Your task to perform on an android device: check data usage Image 0: 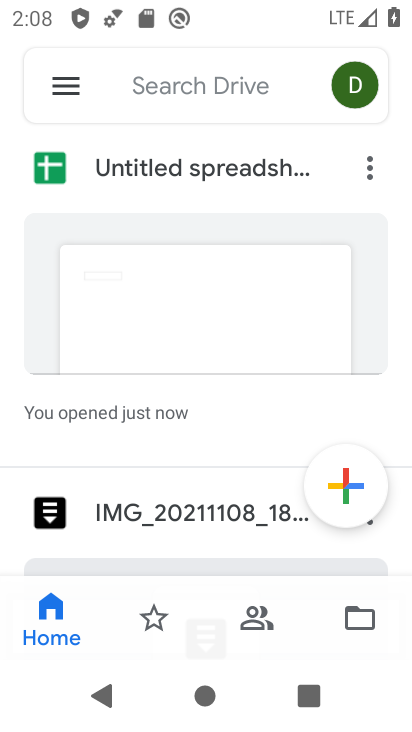
Step 0: press home button
Your task to perform on an android device: check data usage Image 1: 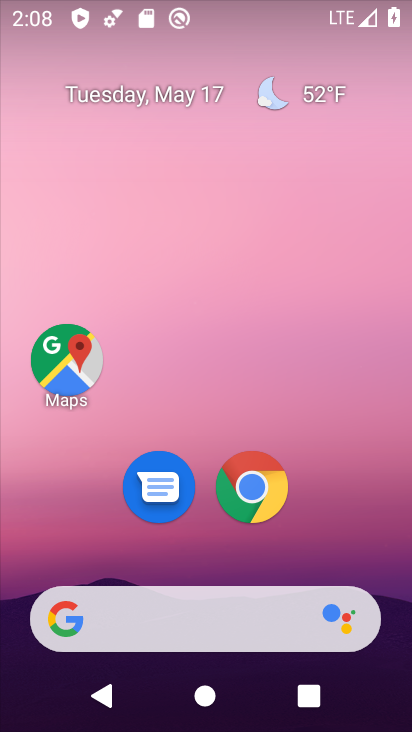
Step 1: drag from (400, 617) to (289, 235)
Your task to perform on an android device: check data usage Image 2: 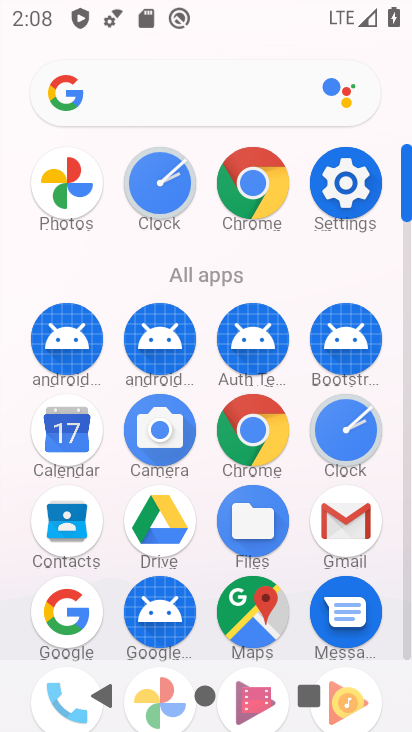
Step 2: click (343, 174)
Your task to perform on an android device: check data usage Image 3: 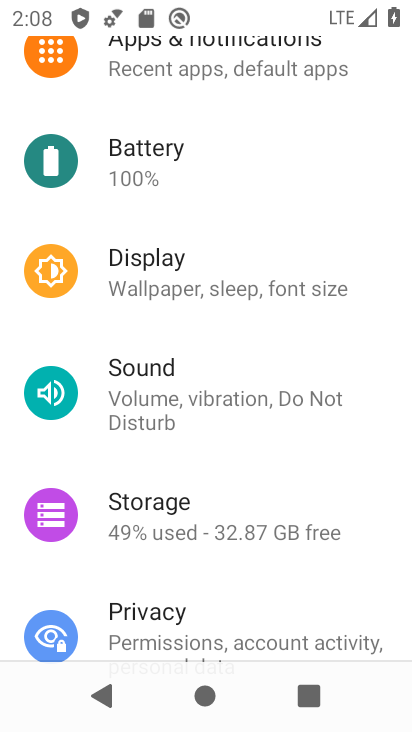
Step 3: drag from (342, 189) to (402, 517)
Your task to perform on an android device: check data usage Image 4: 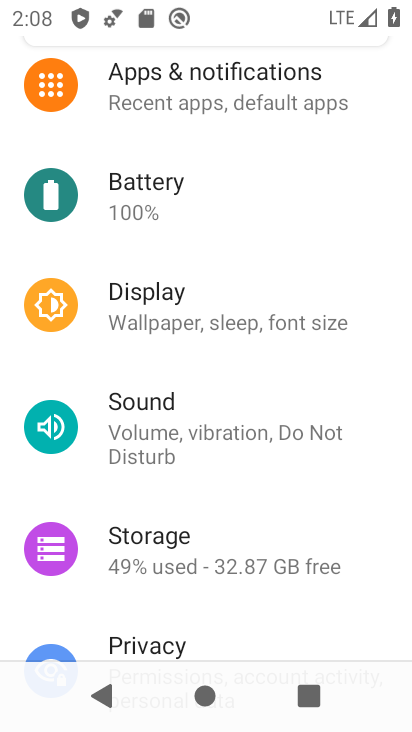
Step 4: drag from (324, 183) to (361, 596)
Your task to perform on an android device: check data usage Image 5: 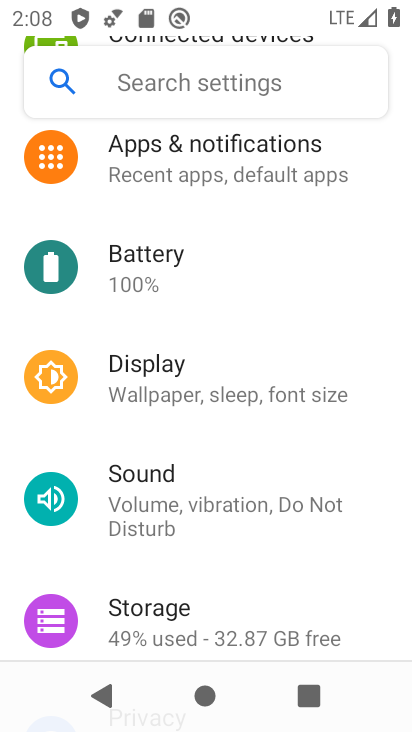
Step 5: drag from (332, 210) to (324, 617)
Your task to perform on an android device: check data usage Image 6: 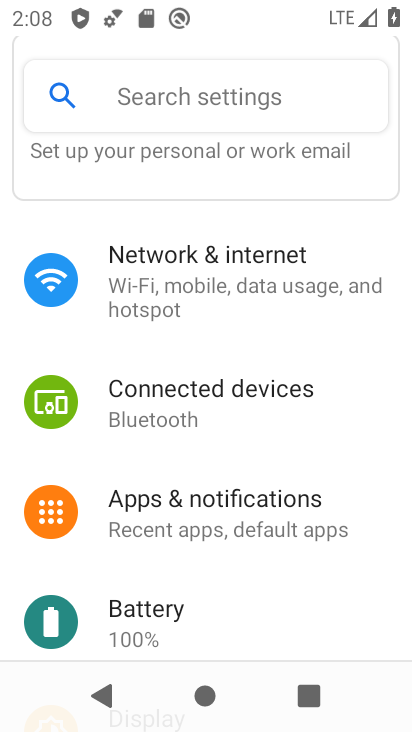
Step 6: click (172, 275)
Your task to perform on an android device: check data usage Image 7: 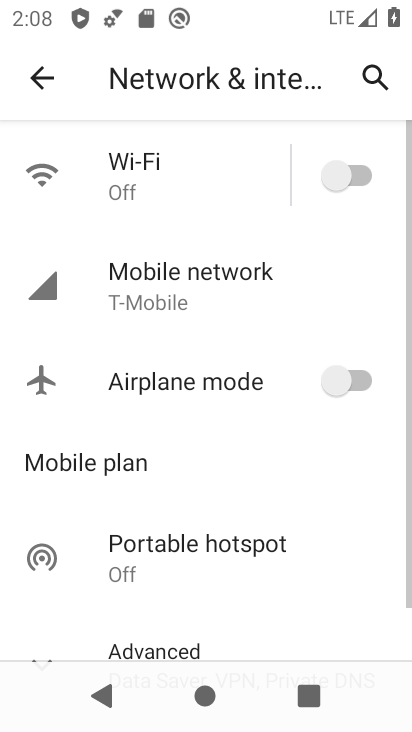
Step 7: click (167, 289)
Your task to perform on an android device: check data usage Image 8: 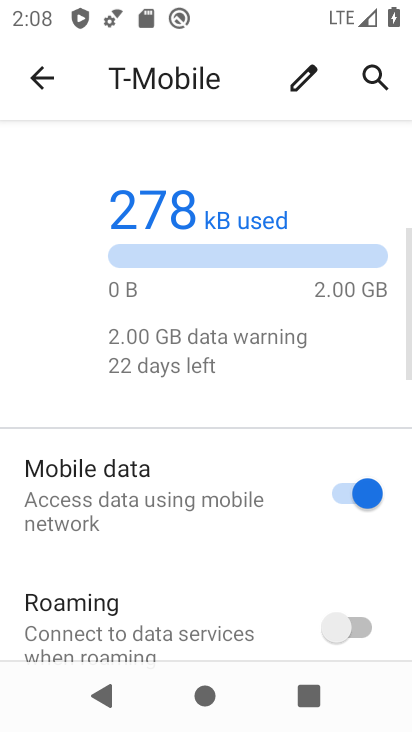
Step 8: task complete